Your task to perform on an android device: move a message to another label in the gmail app Image 0: 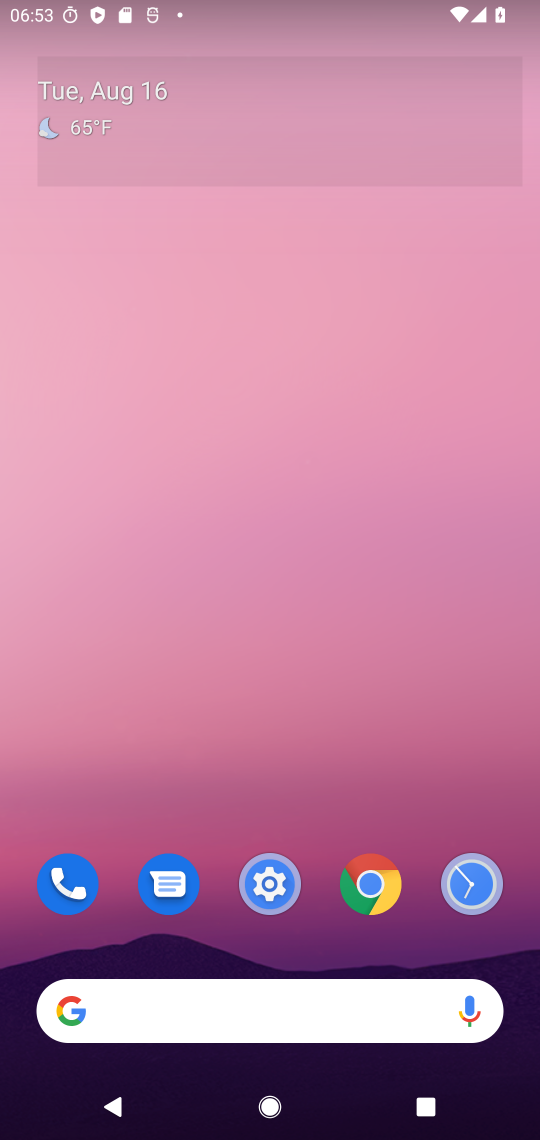
Step 0: press home button
Your task to perform on an android device: move a message to another label in the gmail app Image 1: 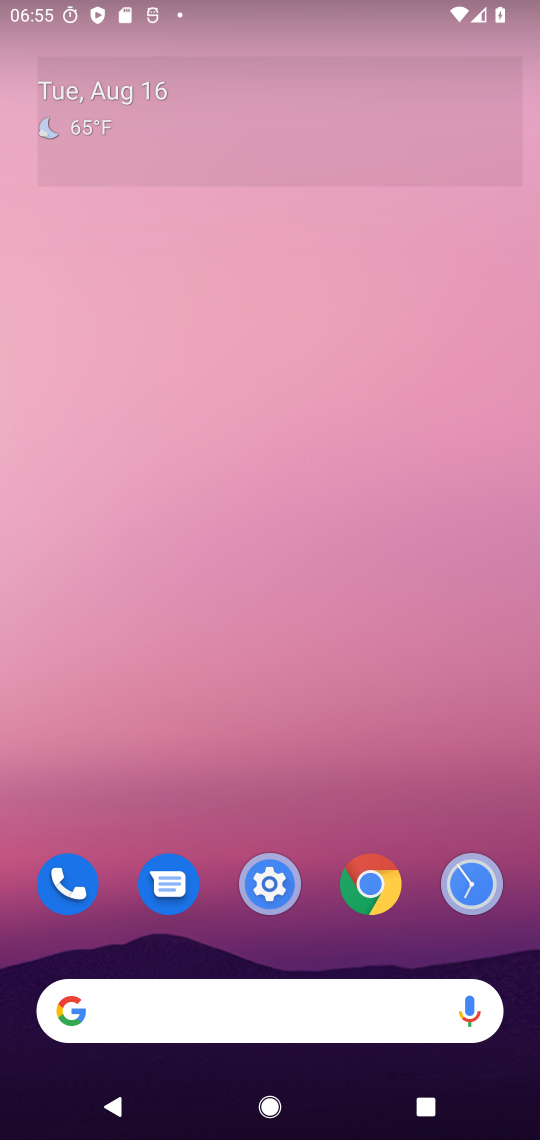
Step 1: drag from (213, 861) to (245, 105)
Your task to perform on an android device: move a message to another label in the gmail app Image 2: 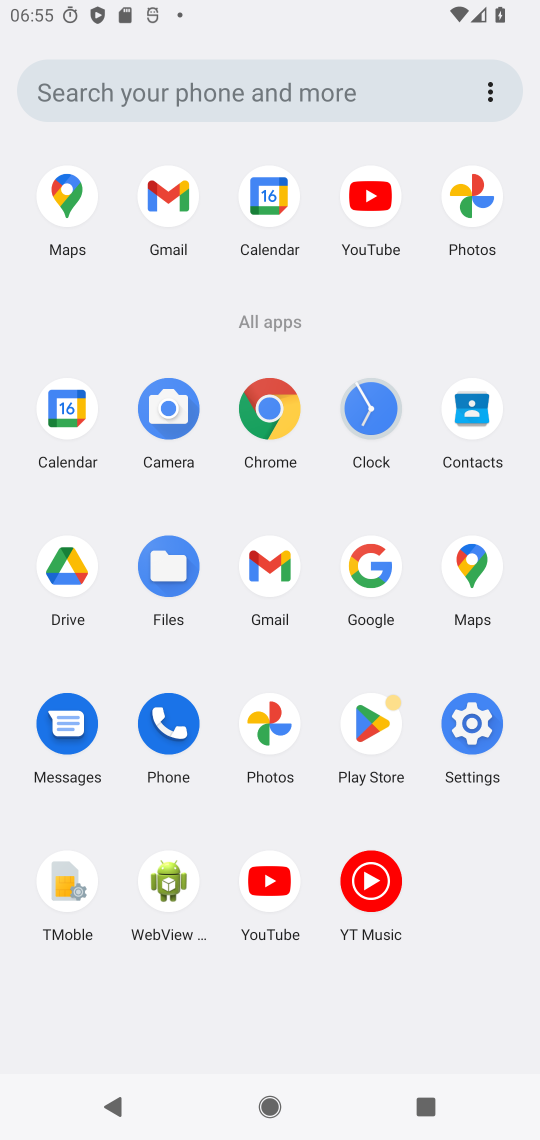
Step 2: click (166, 221)
Your task to perform on an android device: move a message to another label in the gmail app Image 3: 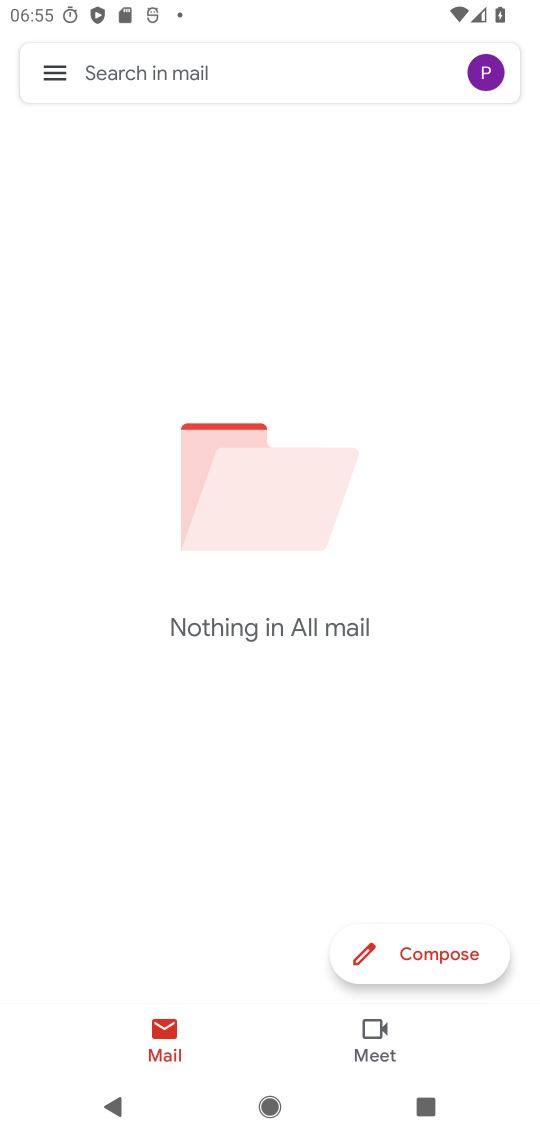
Step 3: click (52, 78)
Your task to perform on an android device: move a message to another label in the gmail app Image 4: 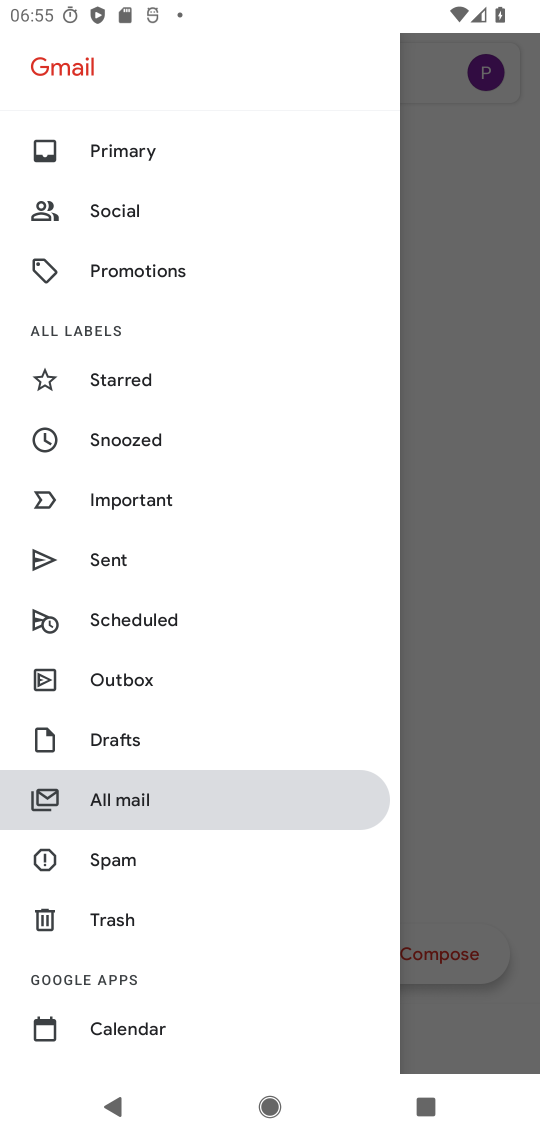
Step 4: click (154, 821)
Your task to perform on an android device: move a message to another label in the gmail app Image 5: 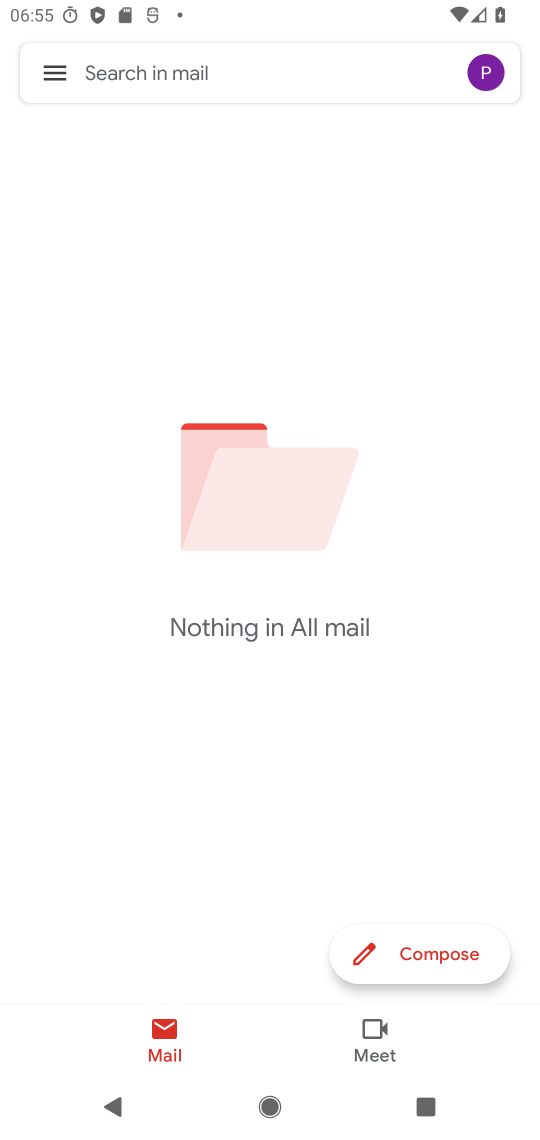
Step 5: task complete